Your task to perform on an android device: See recent photos Image 0: 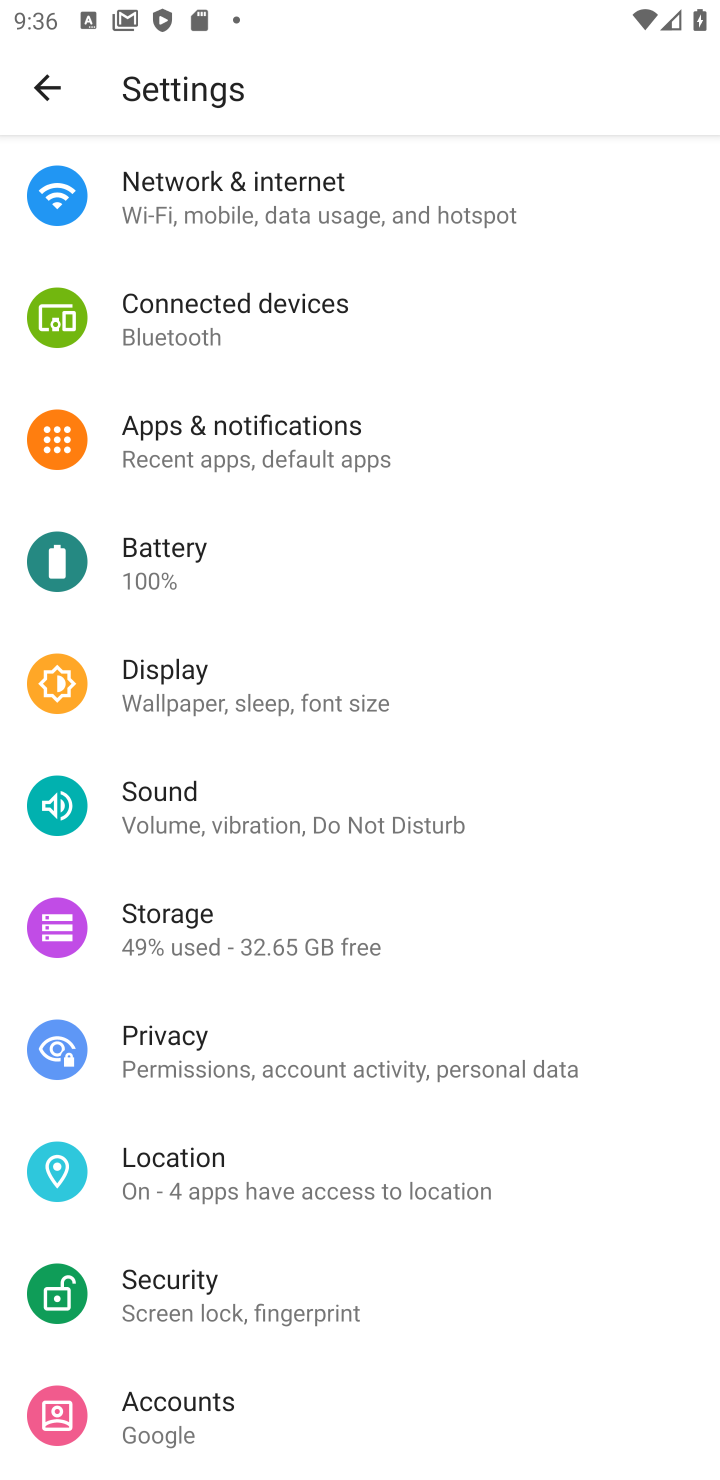
Step 0: press home button
Your task to perform on an android device: See recent photos Image 1: 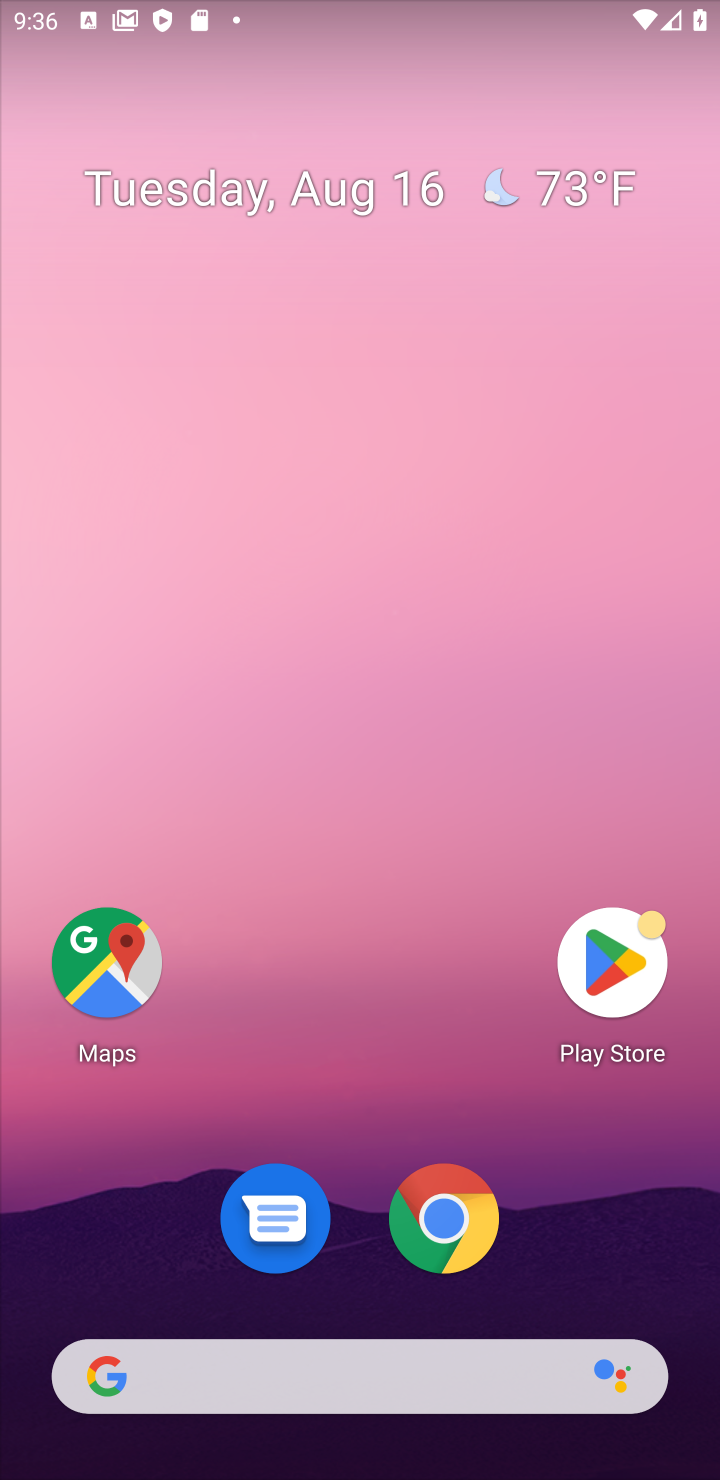
Step 1: drag from (330, 1294) to (363, 235)
Your task to perform on an android device: See recent photos Image 2: 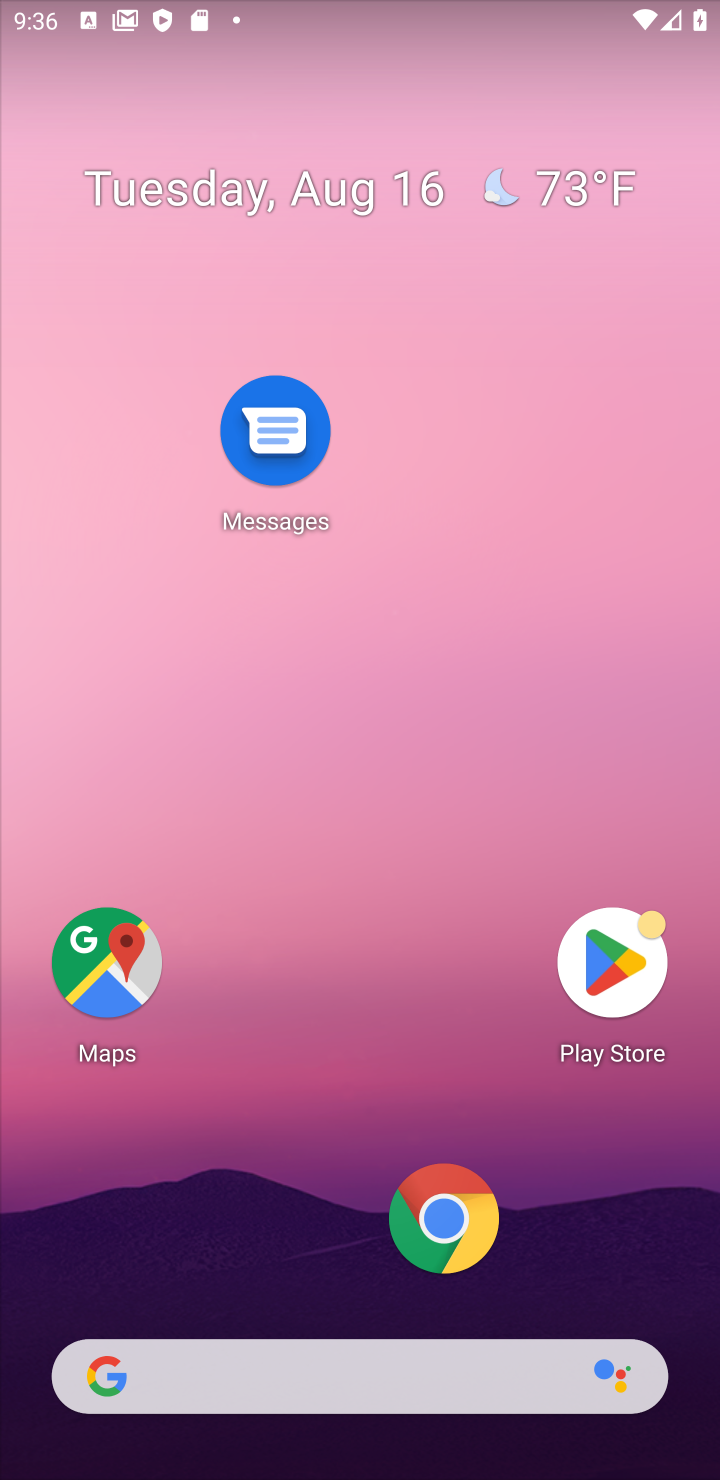
Step 2: drag from (317, 1254) to (412, 176)
Your task to perform on an android device: See recent photos Image 3: 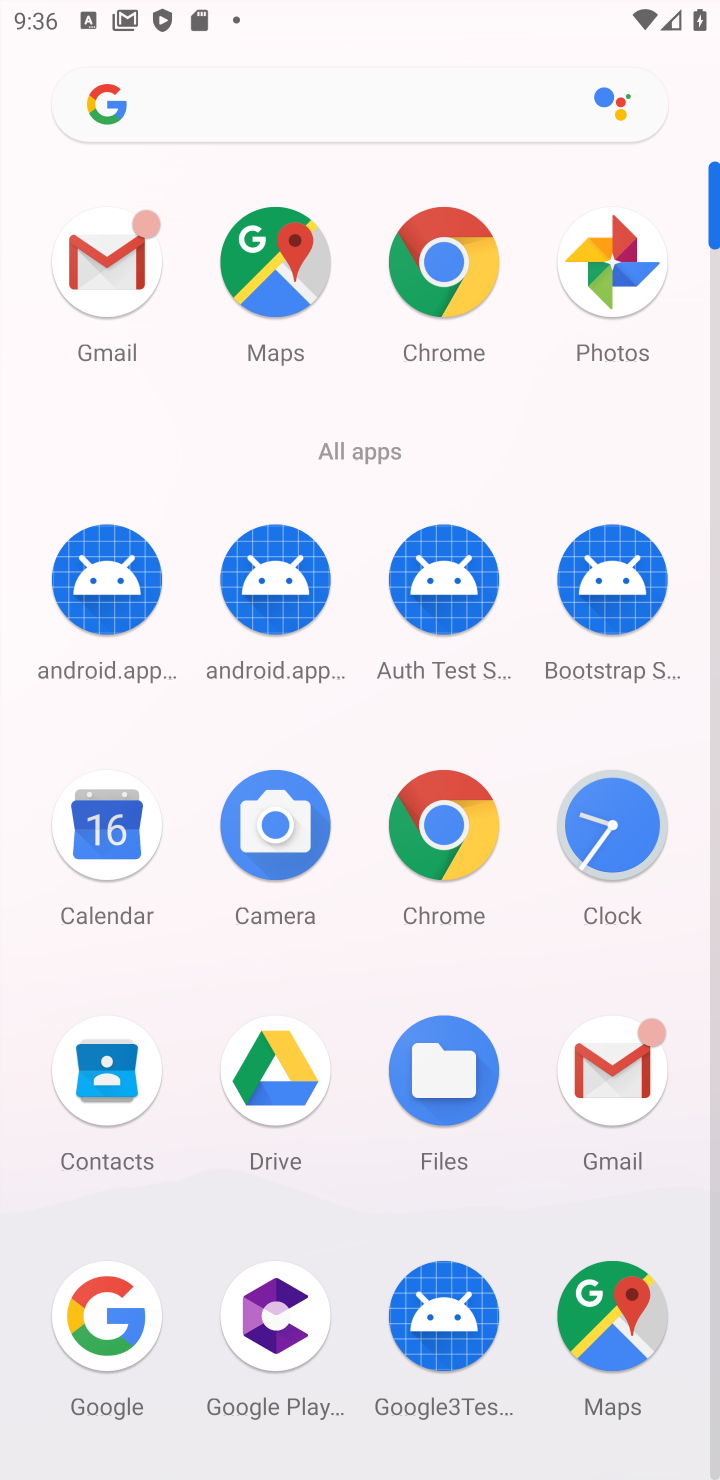
Step 3: click (594, 287)
Your task to perform on an android device: See recent photos Image 4: 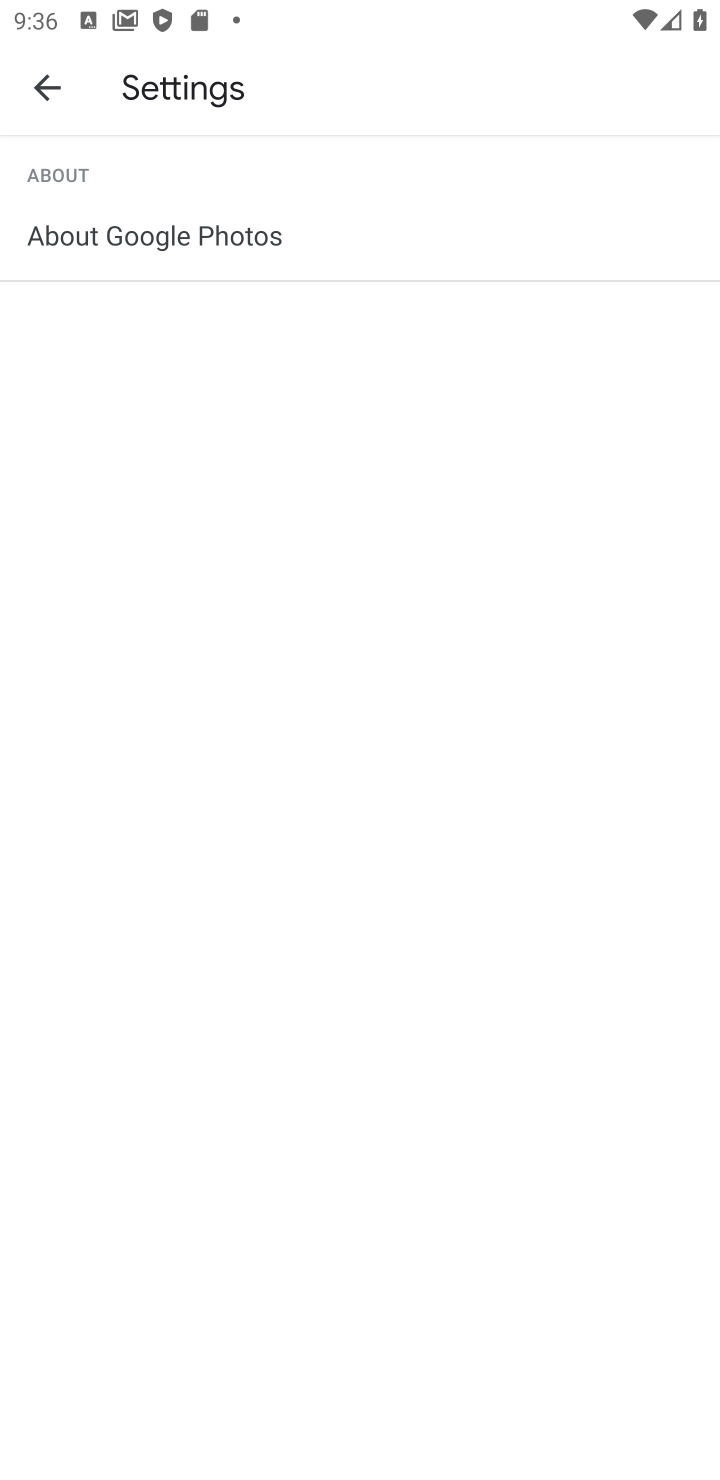
Step 4: click (41, 100)
Your task to perform on an android device: See recent photos Image 5: 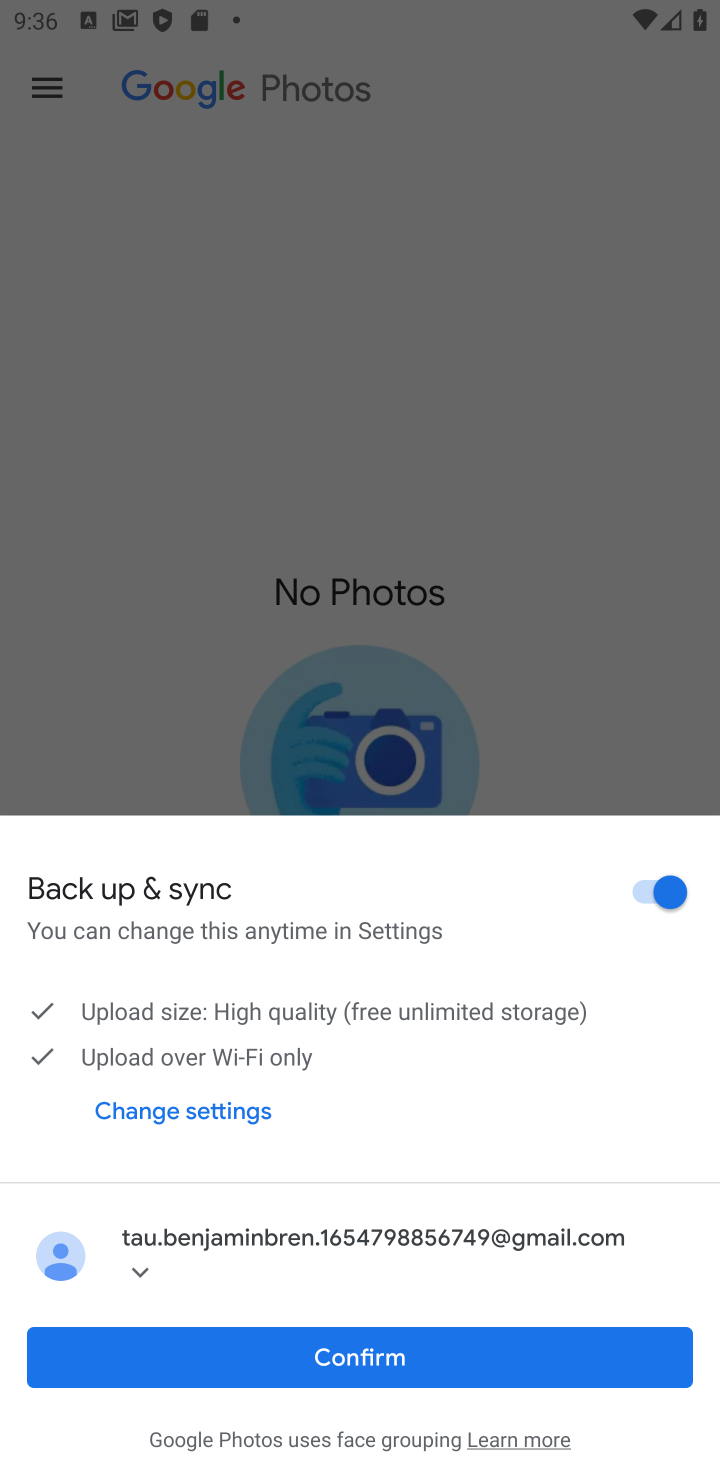
Step 5: click (351, 1360)
Your task to perform on an android device: See recent photos Image 6: 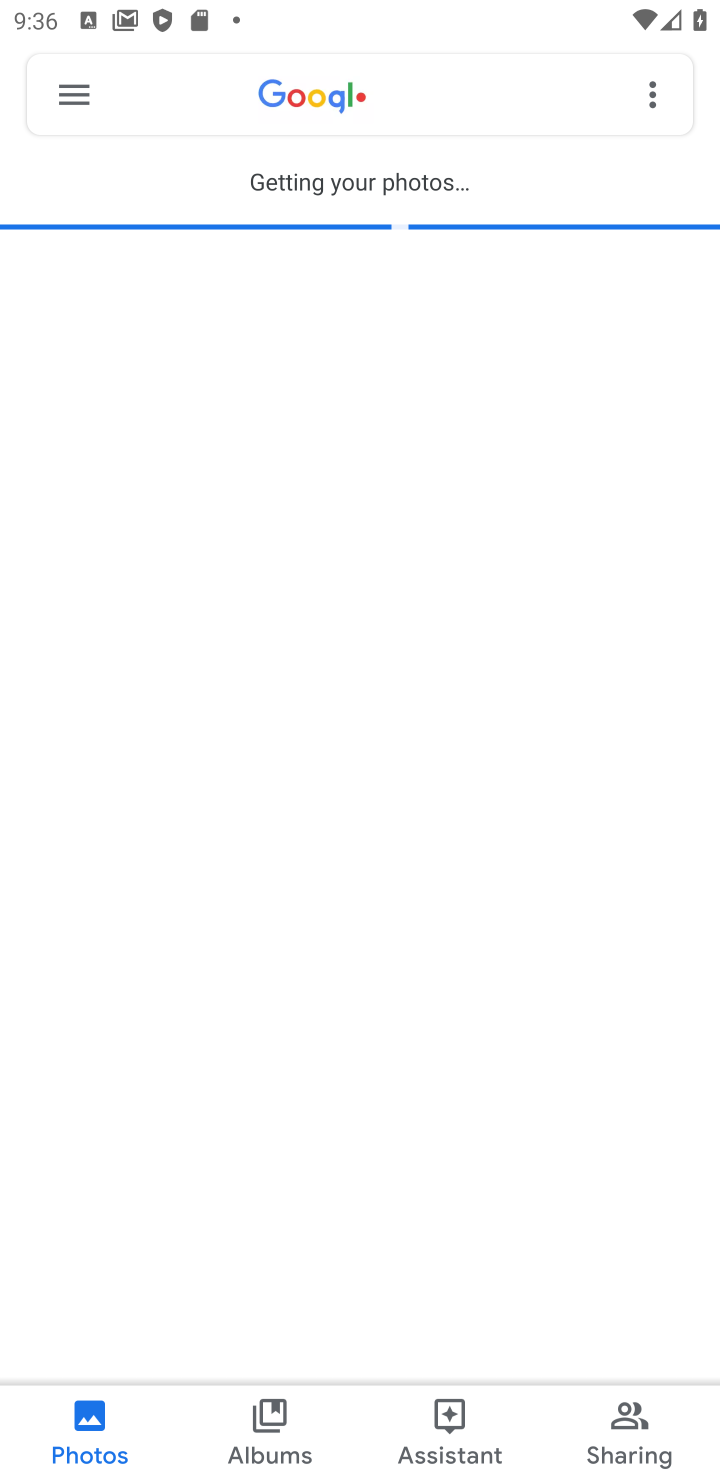
Step 6: task complete